Your task to perform on an android device: Go to eBay Image 0: 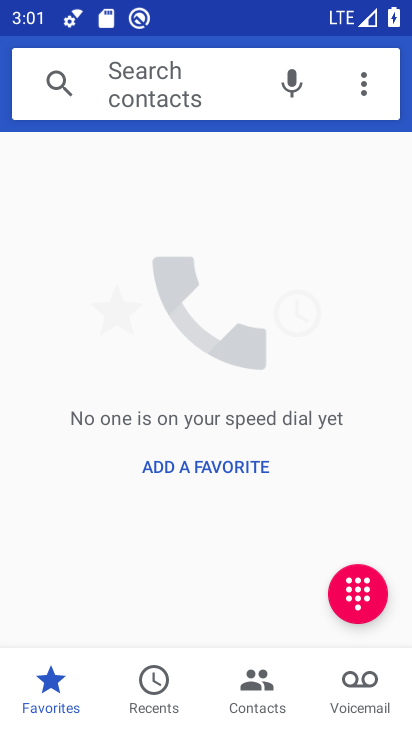
Step 0: press home button
Your task to perform on an android device: Go to eBay Image 1: 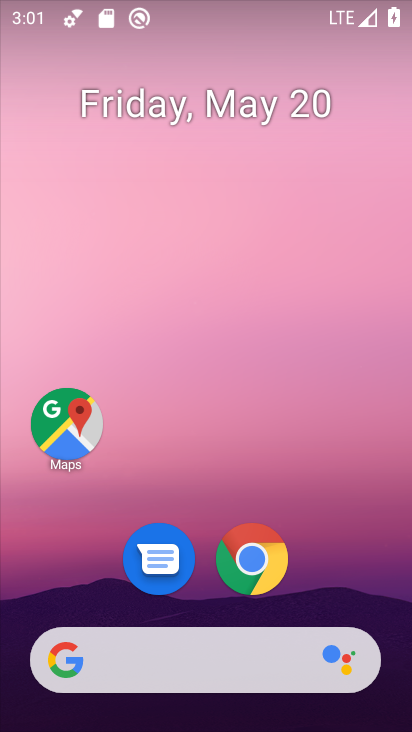
Step 1: click (218, 673)
Your task to perform on an android device: Go to eBay Image 2: 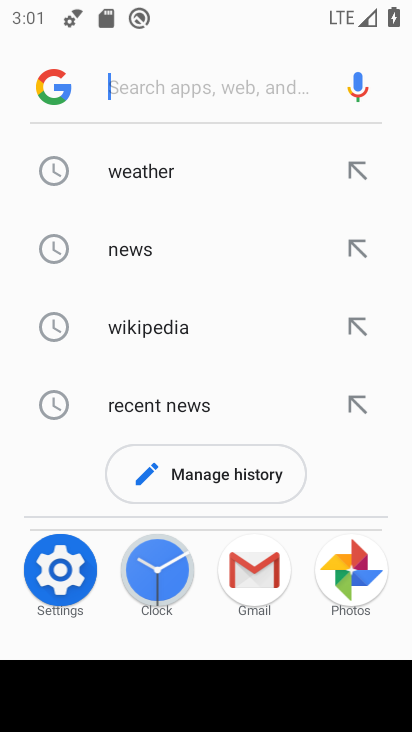
Step 2: type "ebay"
Your task to perform on an android device: Go to eBay Image 3: 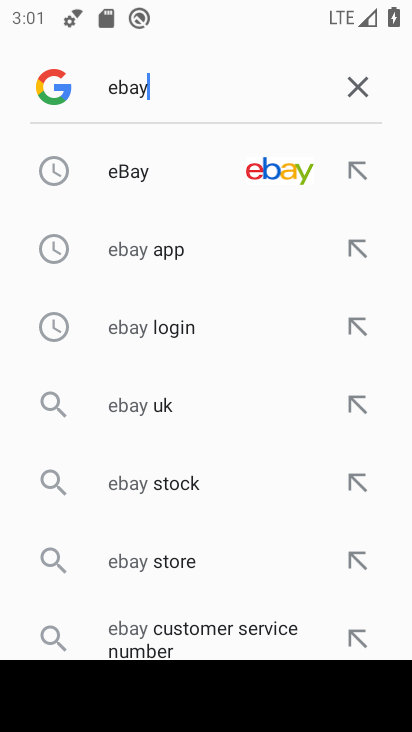
Step 3: click (136, 170)
Your task to perform on an android device: Go to eBay Image 4: 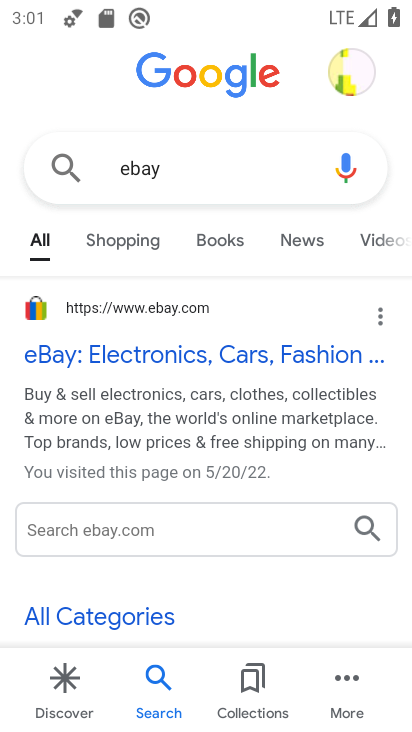
Step 4: click (52, 356)
Your task to perform on an android device: Go to eBay Image 5: 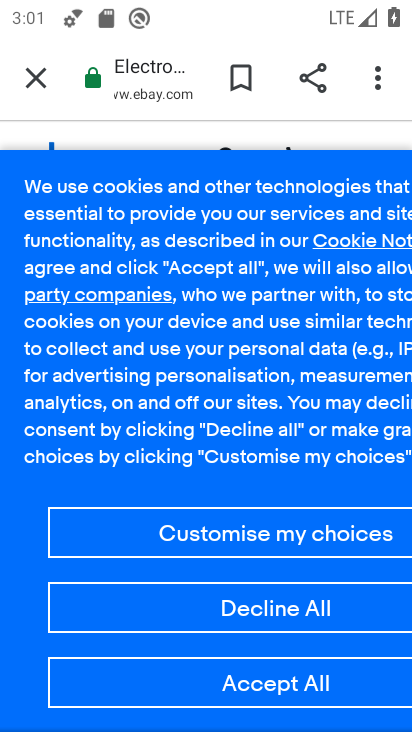
Step 5: task complete